Your task to perform on an android device: change keyboard looks Image 0: 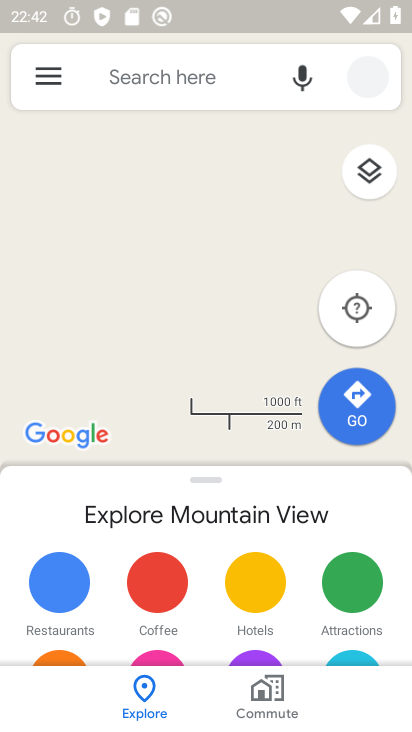
Step 0: press home button
Your task to perform on an android device: change keyboard looks Image 1: 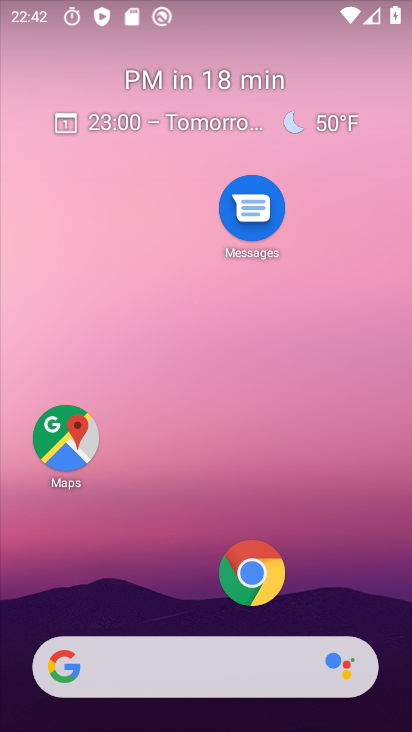
Step 1: drag from (183, 594) to (198, 72)
Your task to perform on an android device: change keyboard looks Image 2: 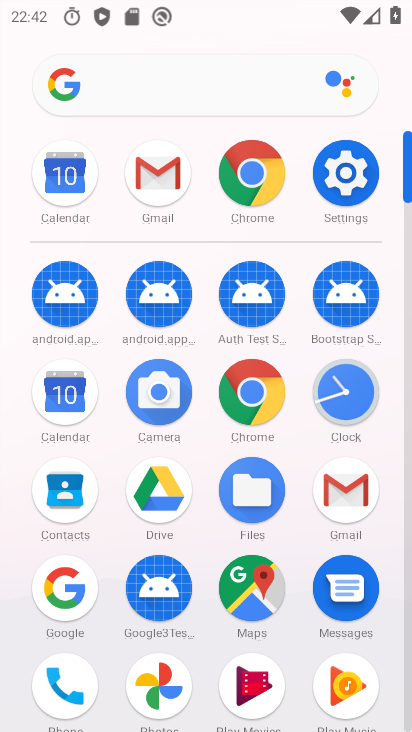
Step 2: click (344, 162)
Your task to perform on an android device: change keyboard looks Image 3: 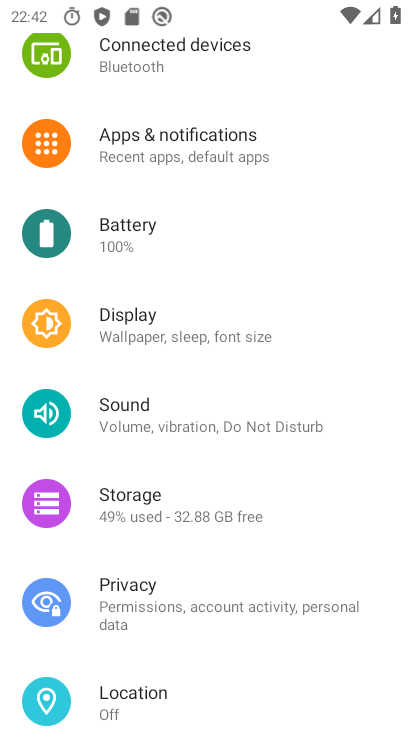
Step 3: drag from (223, 604) to (182, 25)
Your task to perform on an android device: change keyboard looks Image 4: 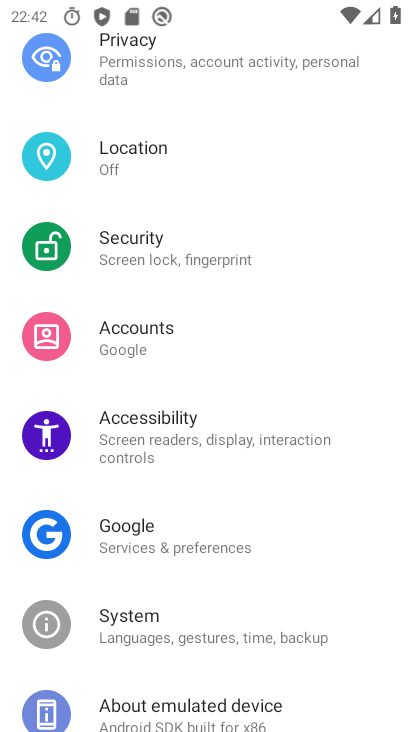
Step 4: click (181, 637)
Your task to perform on an android device: change keyboard looks Image 5: 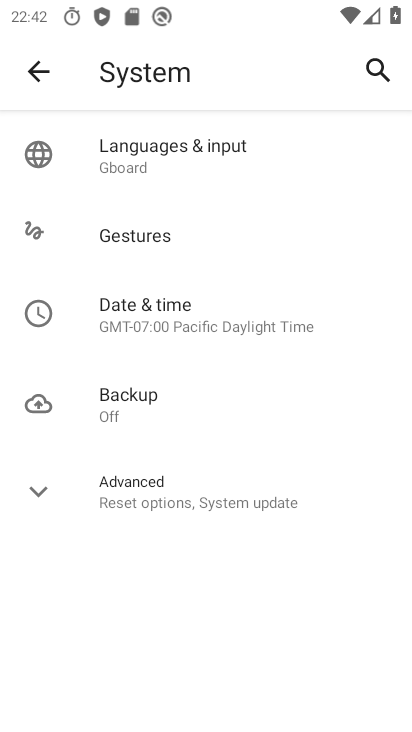
Step 5: click (127, 170)
Your task to perform on an android device: change keyboard looks Image 6: 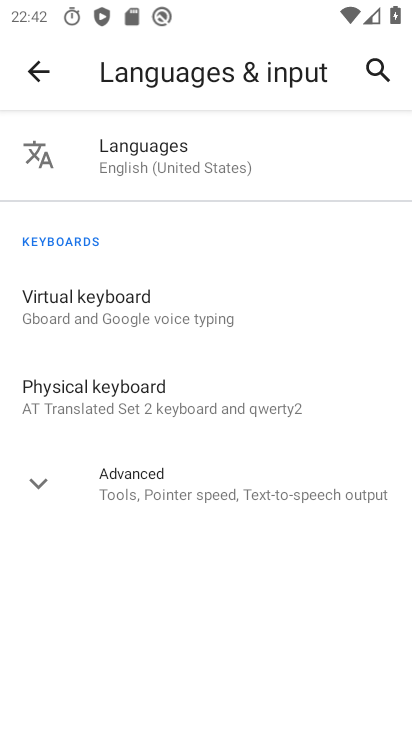
Step 6: click (126, 311)
Your task to perform on an android device: change keyboard looks Image 7: 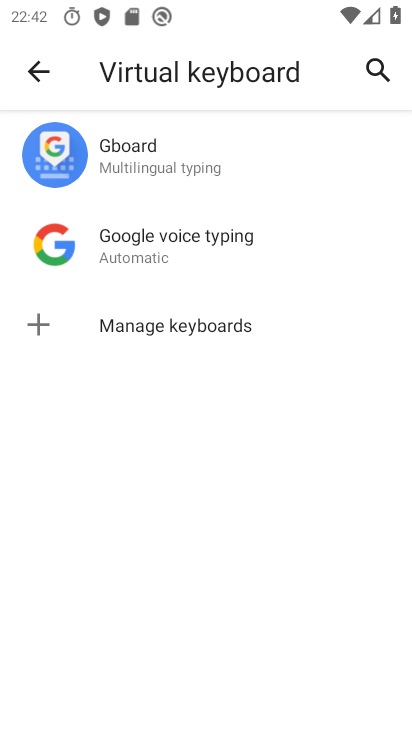
Step 7: click (116, 168)
Your task to perform on an android device: change keyboard looks Image 8: 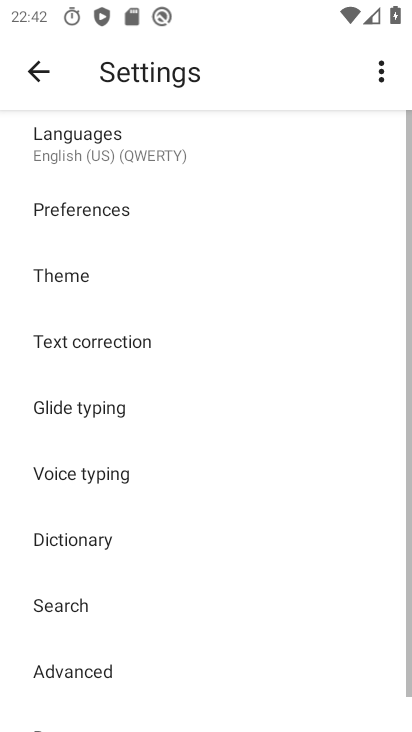
Step 8: click (100, 268)
Your task to perform on an android device: change keyboard looks Image 9: 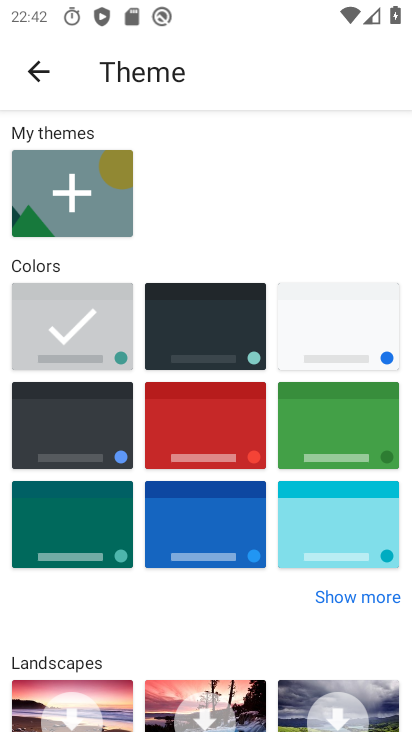
Step 9: click (207, 331)
Your task to perform on an android device: change keyboard looks Image 10: 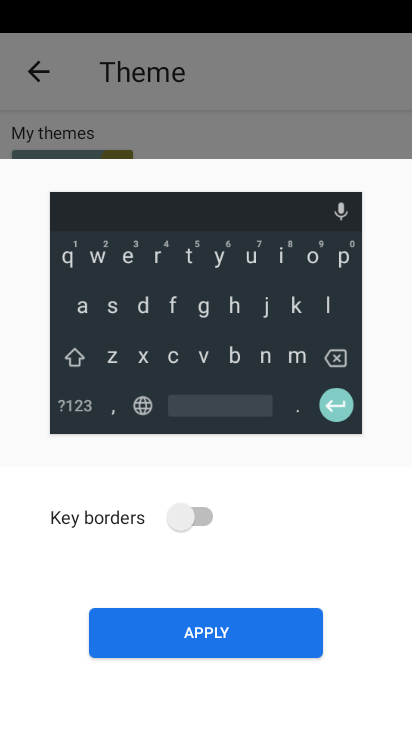
Step 10: click (219, 653)
Your task to perform on an android device: change keyboard looks Image 11: 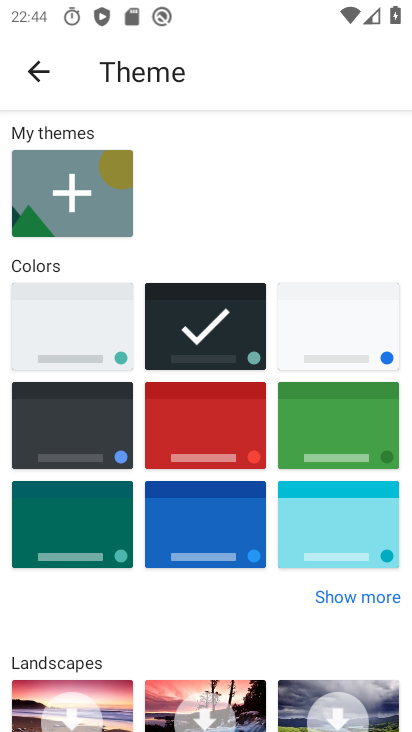
Step 11: task complete